Your task to perform on an android device: Show me productivity apps on the Play Store Image 0: 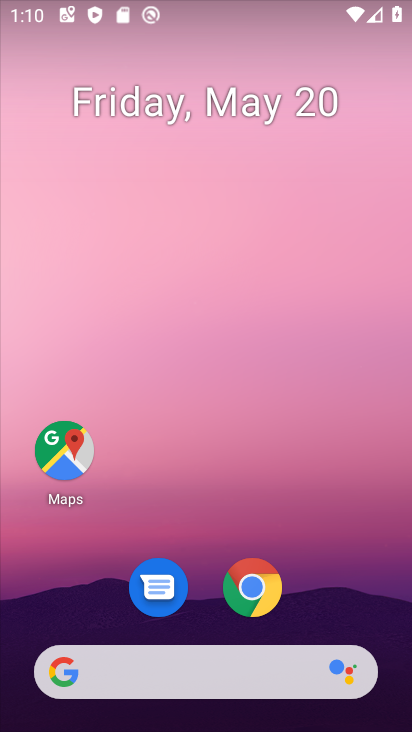
Step 0: drag from (318, 555) to (272, 63)
Your task to perform on an android device: Show me productivity apps on the Play Store Image 1: 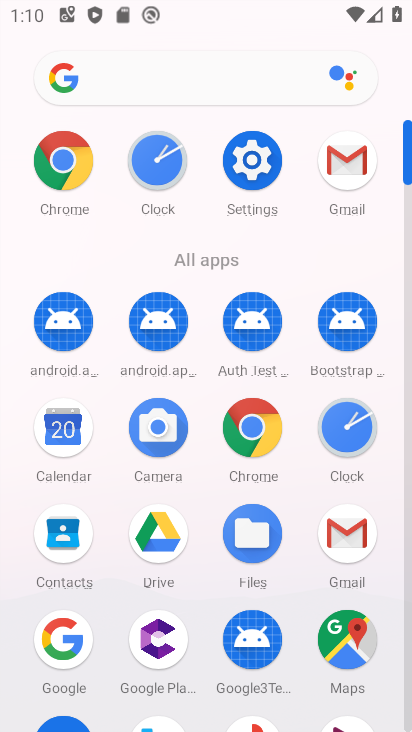
Step 1: drag from (196, 634) to (199, 156)
Your task to perform on an android device: Show me productivity apps on the Play Store Image 2: 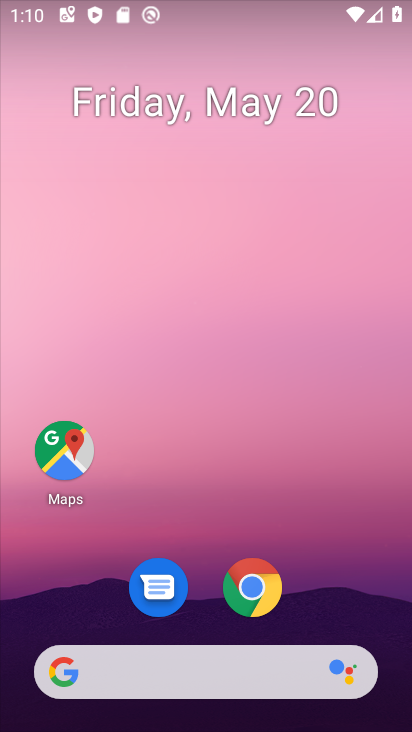
Step 2: drag from (365, 618) to (274, 30)
Your task to perform on an android device: Show me productivity apps on the Play Store Image 3: 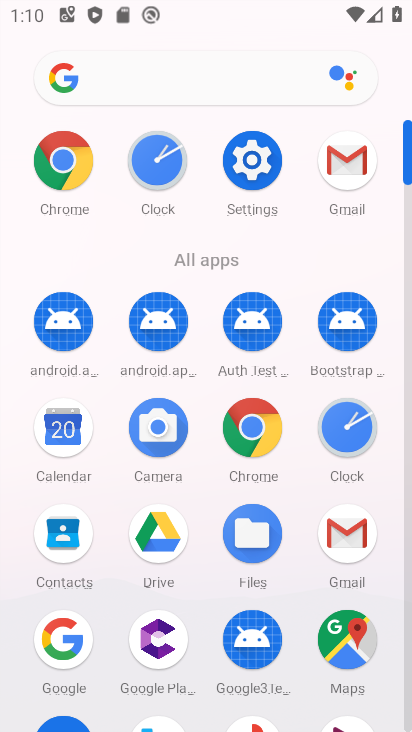
Step 3: click (408, 708)
Your task to perform on an android device: Show me productivity apps on the Play Store Image 4: 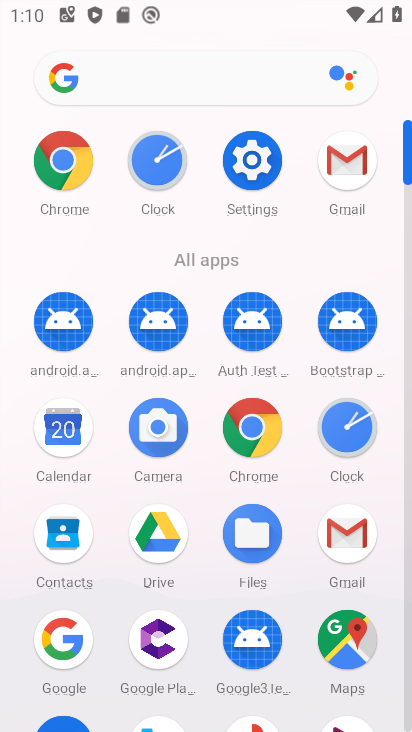
Step 4: click (408, 708)
Your task to perform on an android device: Show me productivity apps on the Play Store Image 5: 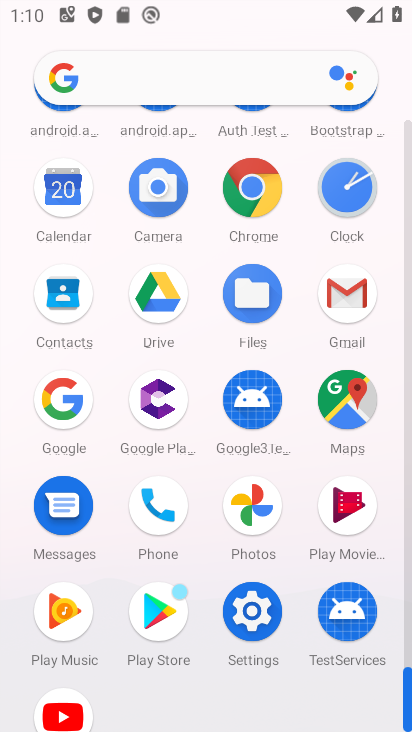
Step 5: click (408, 708)
Your task to perform on an android device: Show me productivity apps on the Play Store Image 6: 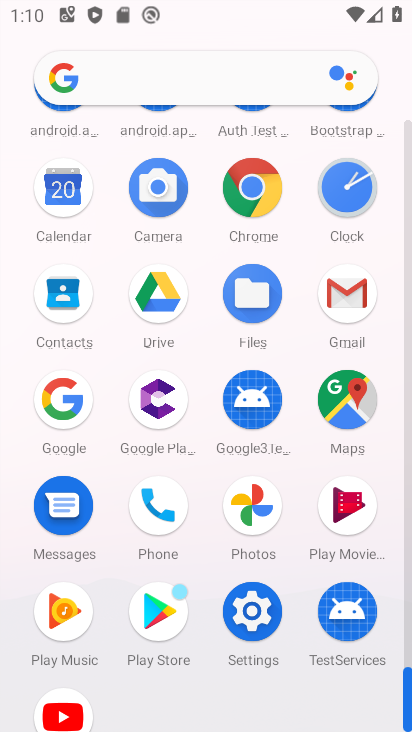
Step 6: click (408, 708)
Your task to perform on an android device: Show me productivity apps on the Play Store Image 7: 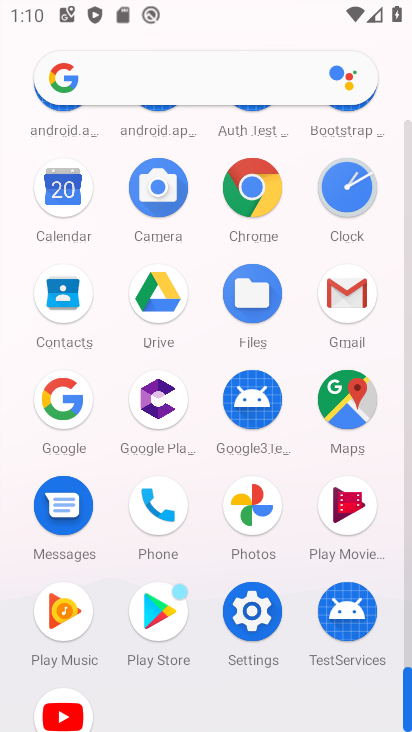
Step 7: click (408, 708)
Your task to perform on an android device: Show me productivity apps on the Play Store Image 8: 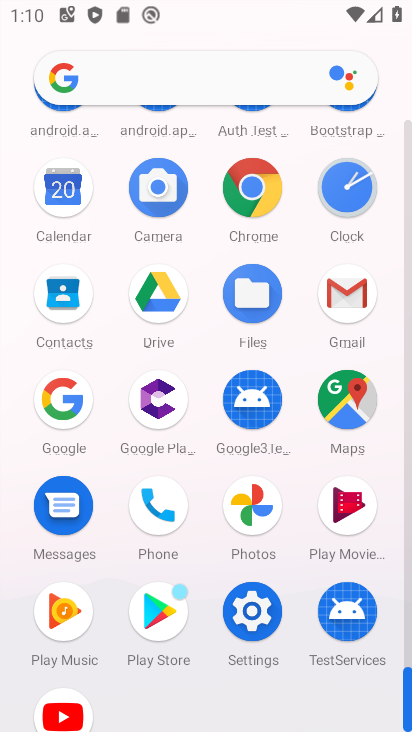
Step 8: click (408, 708)
Your task to perform on an android device: Show me productivity apps on the Play Store Image 9: 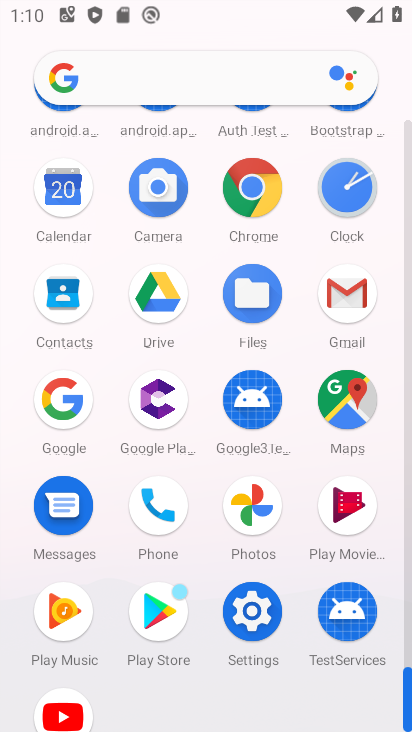
Step 9: drag from (241, 705) to (237, 348)
Your task to perform on an android device: Show me productivity apps on the Play Store Image 10: 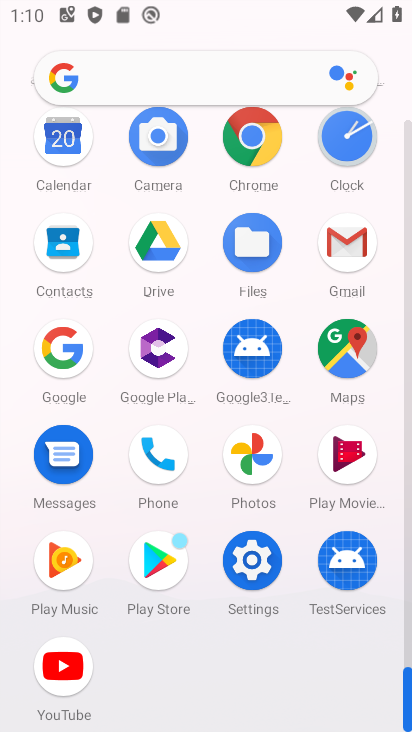
Step 10: click (149, 563)
Your task to perform on an android device: Show me productivity apps on the Play Store Image 11: 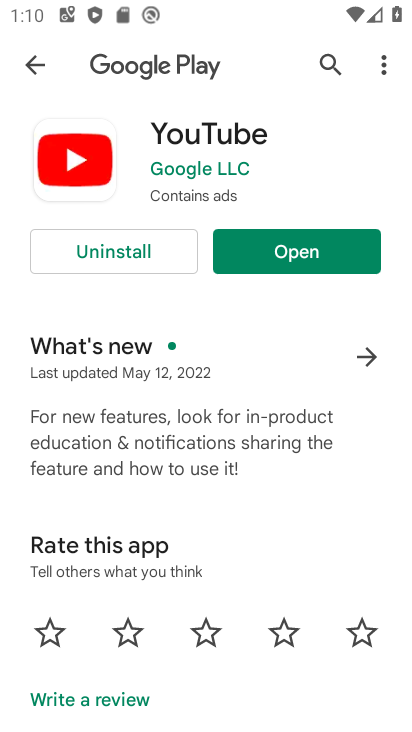
Step 11: click (33, 63)
Your task to perform on an android device: Show me productivity apps on the Play Store Image 12: 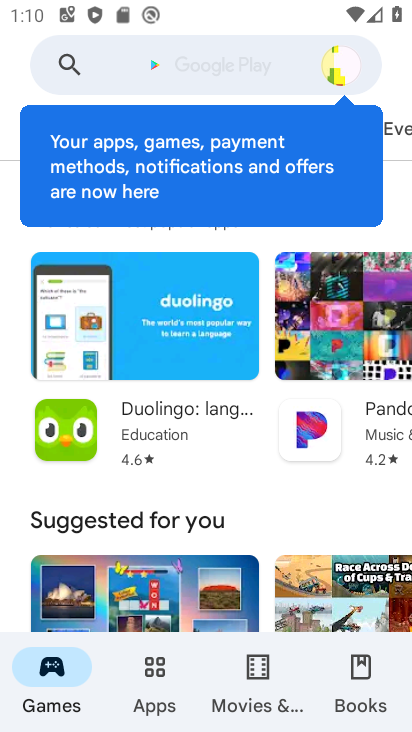
Step 12: click (149, 657)
Your task to perform on an android device: Show me productivity apps on the Play Store Image 13: 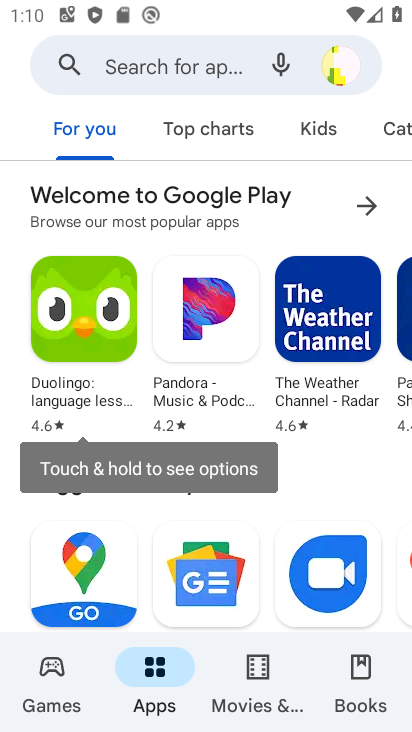
Step 13: task complete